Your task to perform on an android device: Open notification settings Image 0: 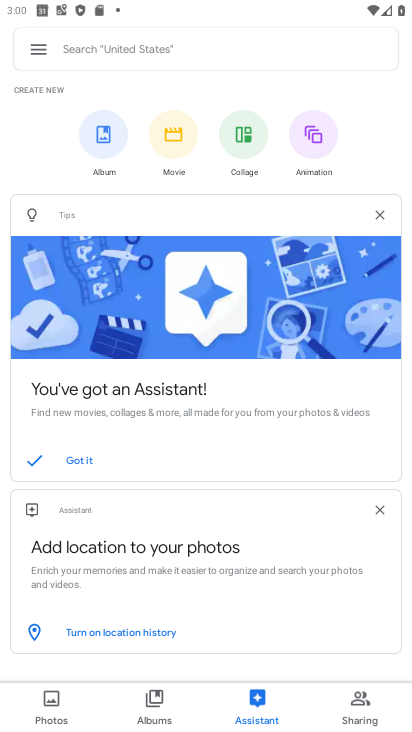
Step 0: press home button
Your task to perform on an android device: Open notification settings Image 1: 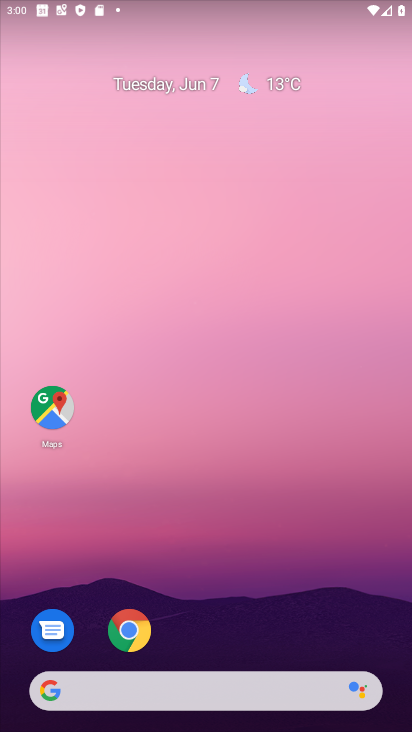
Step 1: drag from (172, 657) to (230, 148)
Your task to perform on an android device: Open notification settings Image 2: 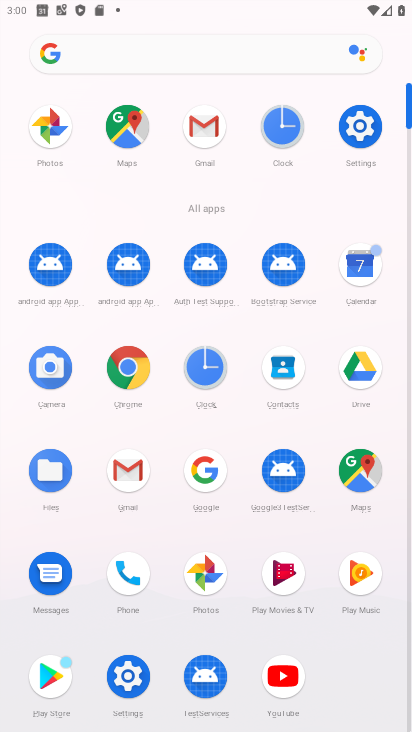
Step 2: click (123, 688)
Your task to perform on an android device: Open notification settings Image 3: 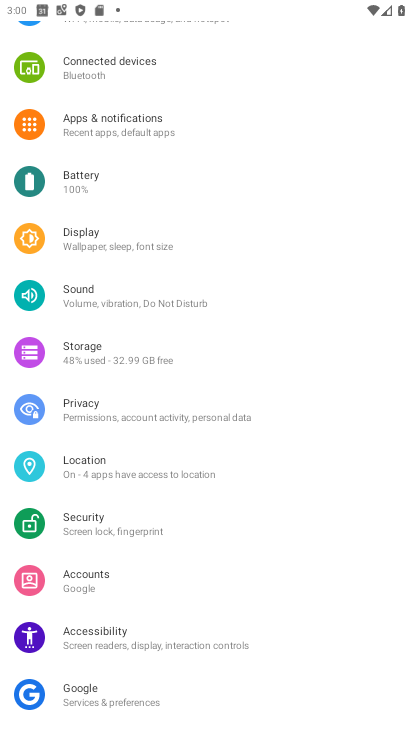
Step 3: task complete